Your task to perform on an android device: change the clock display to analog Image 0: 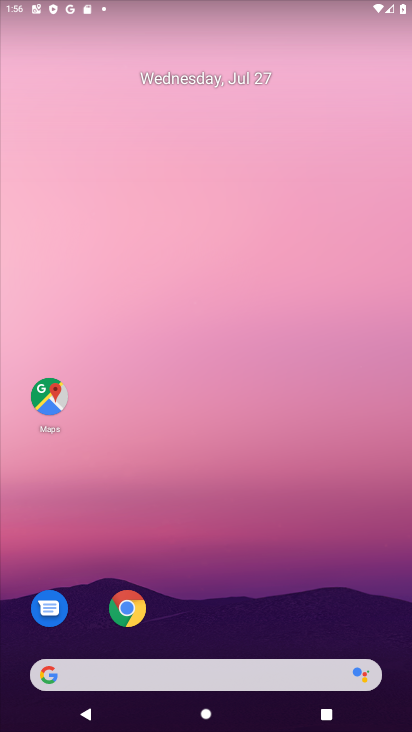
Step 0: drag from (17, 712) to (117, 176)
Your task to perform on an android device: change the clock display to analog Image 1: 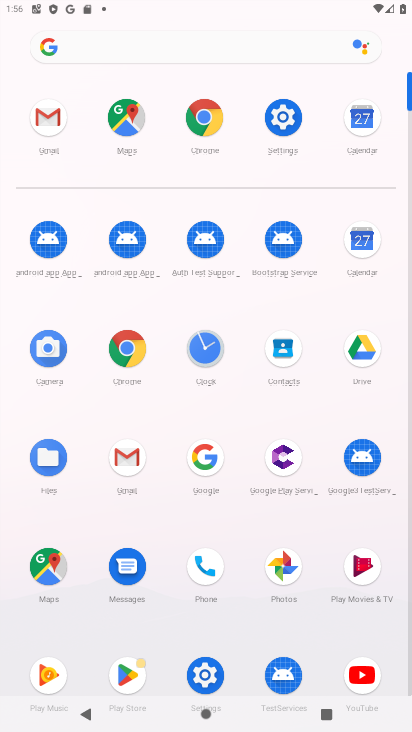
Step 1: click (197, 677)
Your task to perform on an android device: change the clock display to analog Image 2: 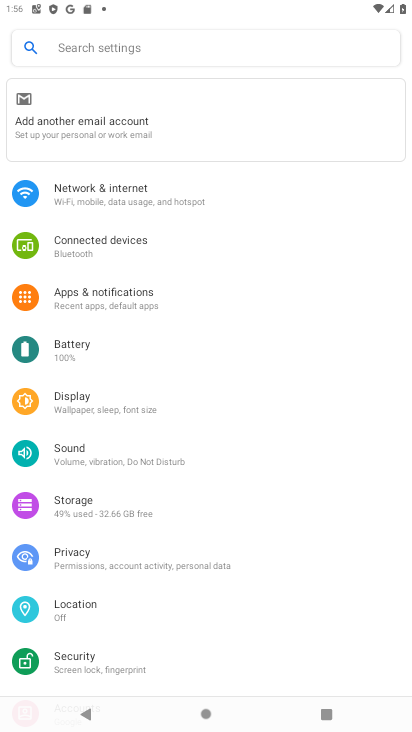
Step 2: press home button
Your task to perform on an android device: change the clock display to analog Image 3: 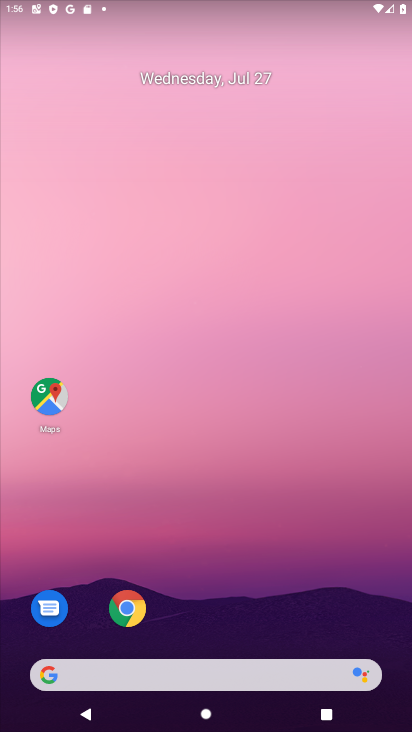
Step 3: drag from (54, 710) to (263, 221)
Your task to perform on an android device: change the clock display to analog Image 4: 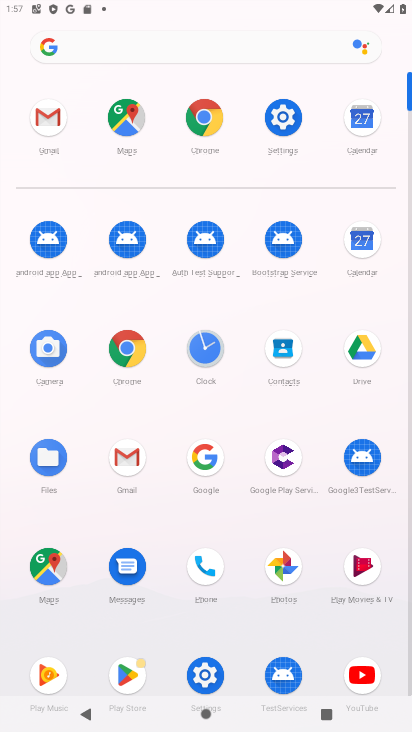
Step 4: click (197, 359)
Your task to perform on an android device: change the clock display to analog Image 5: 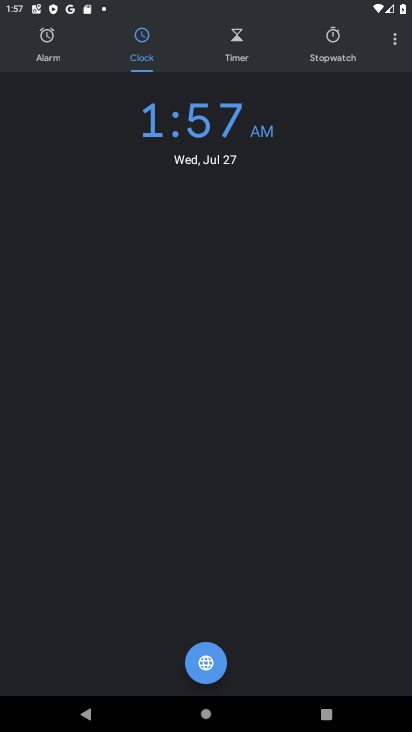
Step 5: click (391, 38)
Your task to perform on an android device: change the clock display to analog Image 6: 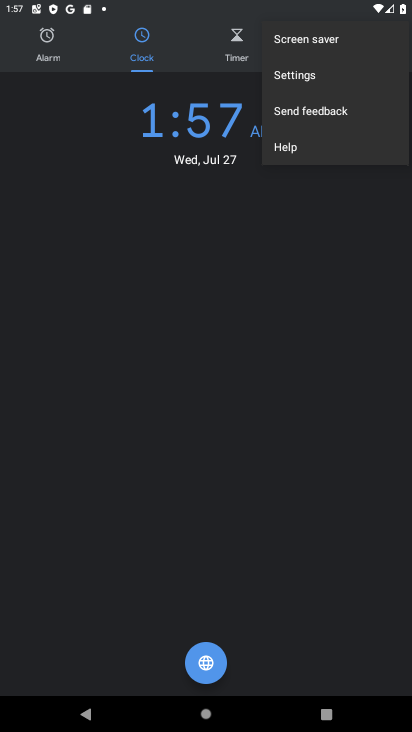
Step 6: click (308, 77)
Your task to perform on an android device: change the clock display to analog Image 7: 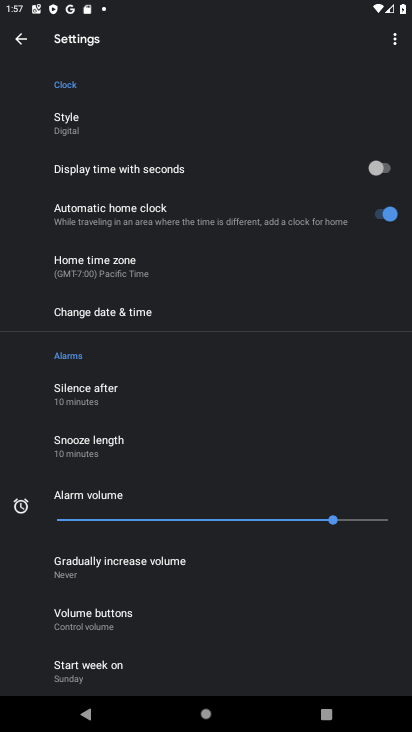
Step 7: click (97, 125)
Your task to perform on an android device: change the clock display to analog Image 8: 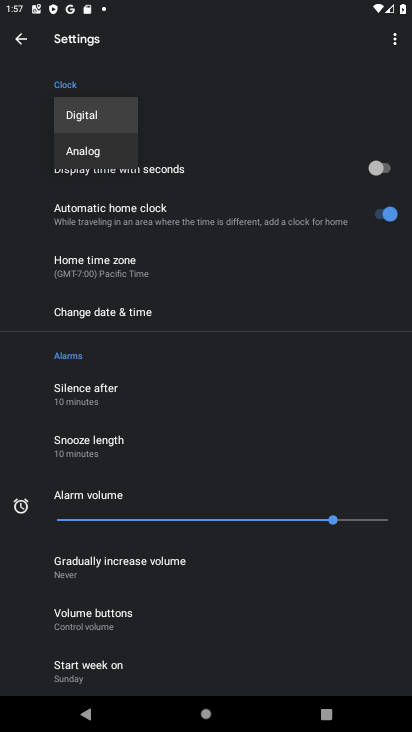
Step 8: click (92, 144)
Your task to perform on an android device: change the clock display to analog Image 9: 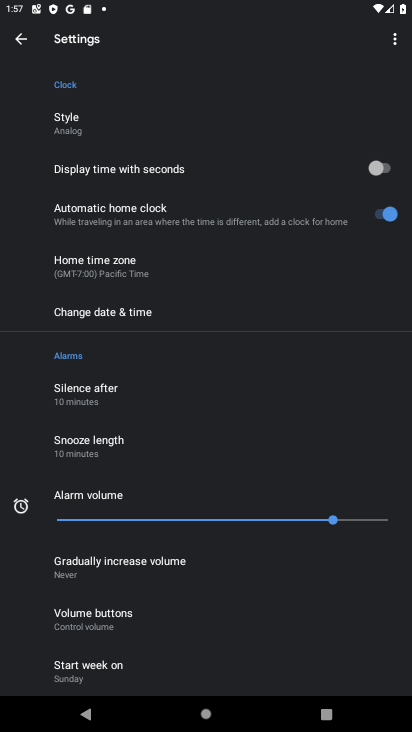
Step 9: task complete